Your task to perform on an android device: check storage Image 0: 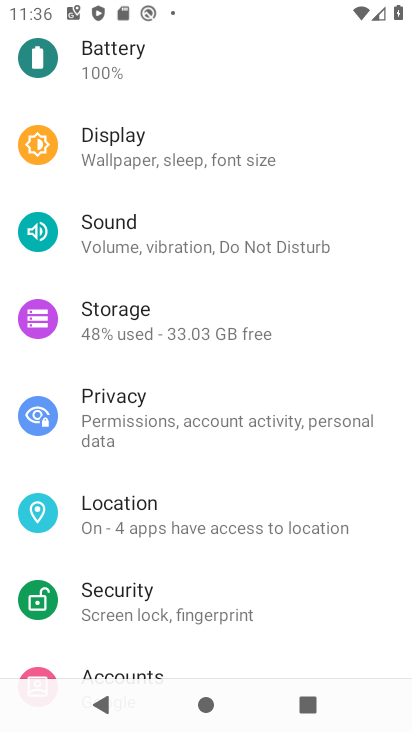
Step 0: press home button
Your task to perform on an android device: check storage Image 1: 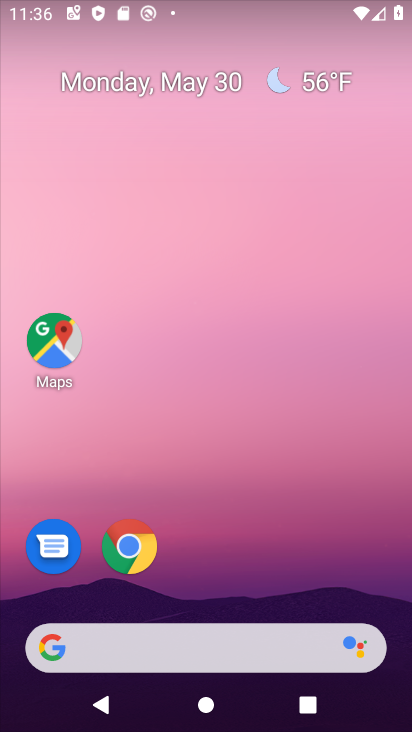
Step 1: drag from (261, 573) to (260, 210)
Your task to perform on an android device: check storage Image 2: 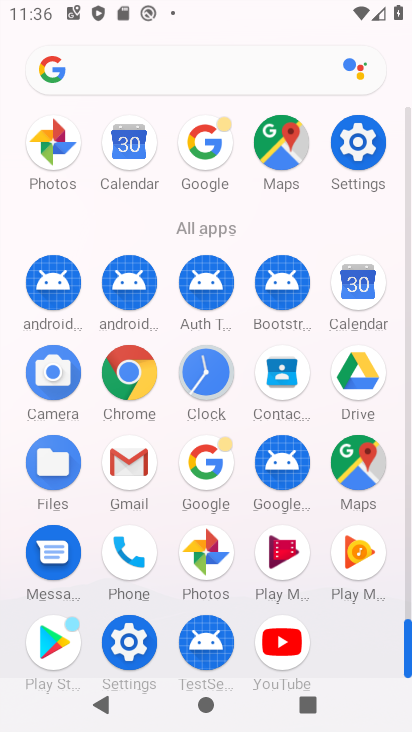
Step 2: click (357, 145)
Your task to perform on an android device: check storage Image 3: 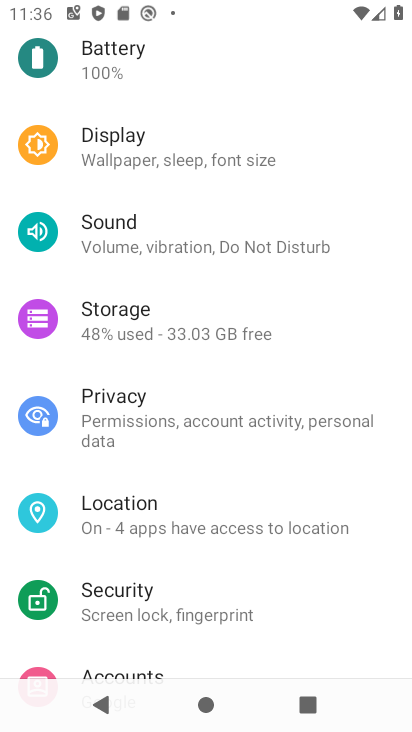
Step 3: click (137, 321)
Your task to perform on an android device: check storage Image 4: 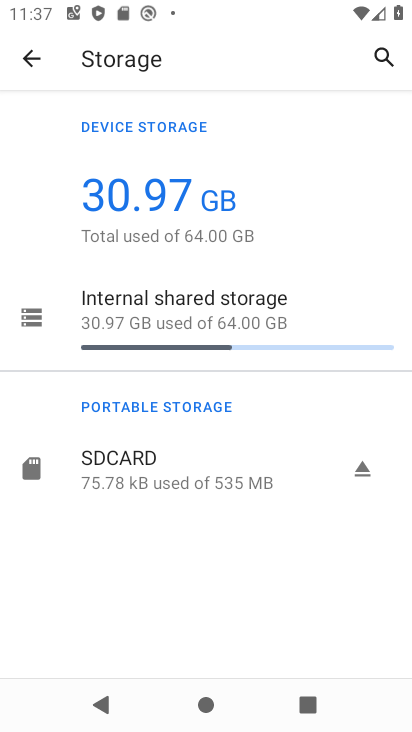
Step 4: task complete